Your task to perform on an android device: Open ESPN.com Image 0: 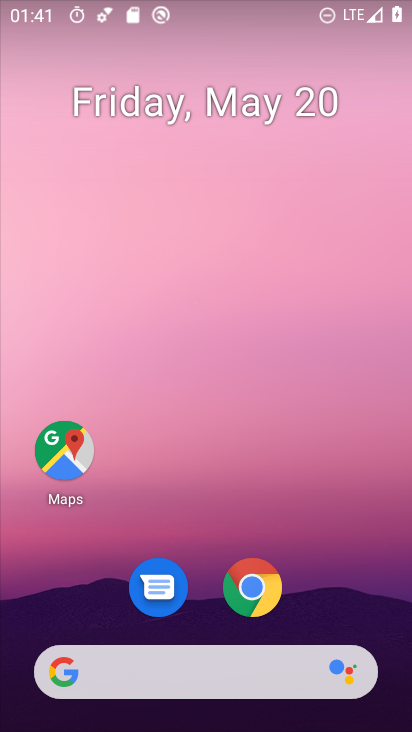
Step 0: drag from (396, 625) to (383, 242)
Your task to perform on an android device: Open ESPN.com Image 1: 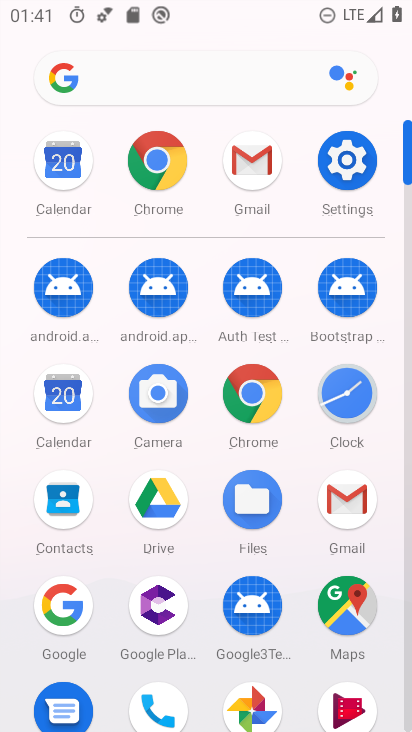
Step 1: click (257, 405)
Your task to perform on an android device: Open ESPN.com Image 2: 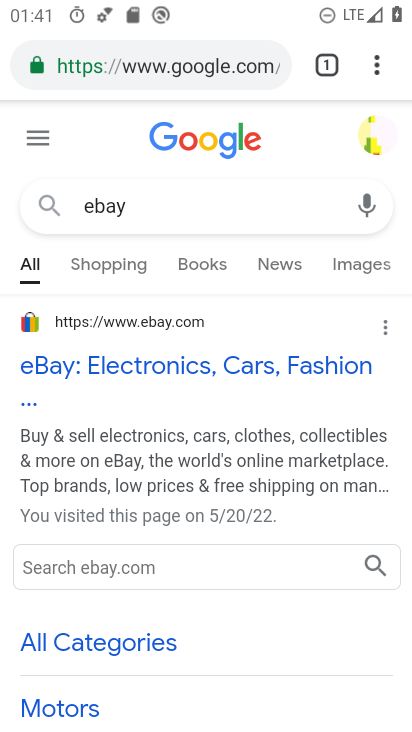
Step 2: click (237, 68)
Your task to perform on an android device: Open ESPN.com Image 3: 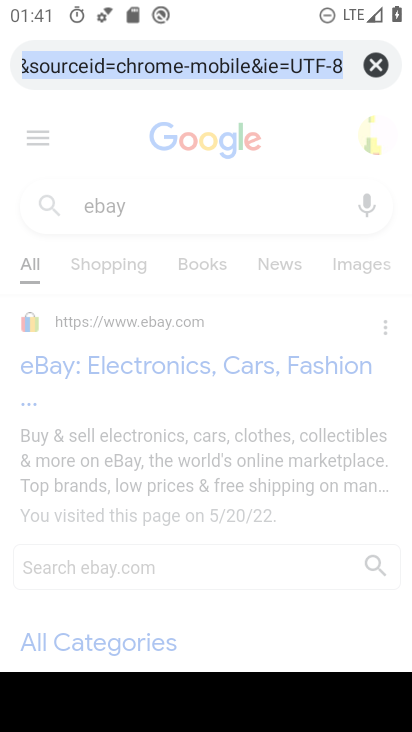
Step 3: click (375, 64)
Your task to perform on an android device: Open ESPN.com Image 4: 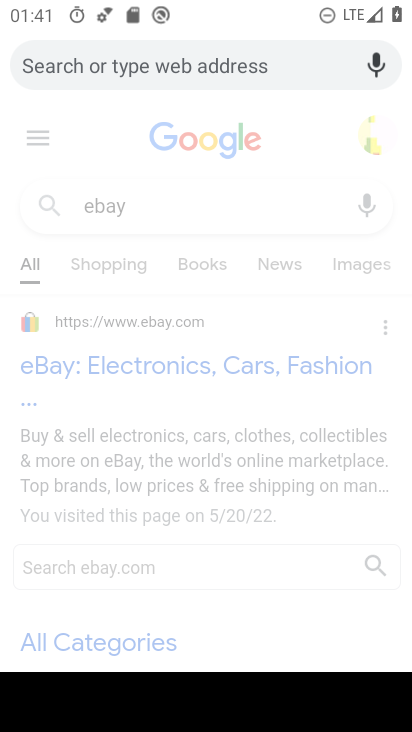
Step 4: type "espn.com"
Your task to perform on an android device: Open ESPN.com Image 5: 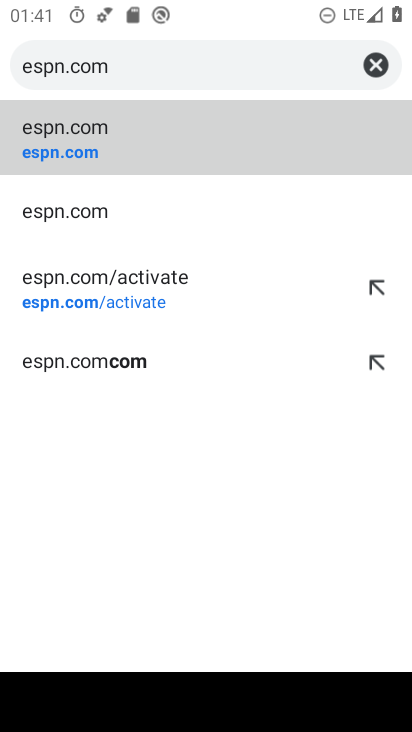
Step 5: click (84, 141)
Your task to perform on an android device: Open ESPN.com Image 6: 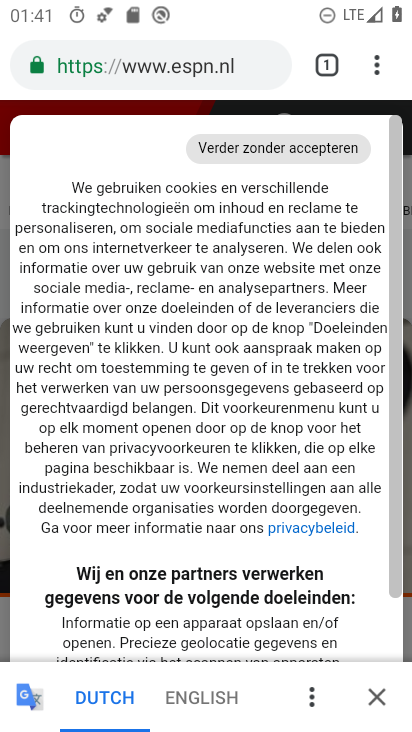
Step 6: task complete